Your task to perform on an android device: Go to Google Image 0: 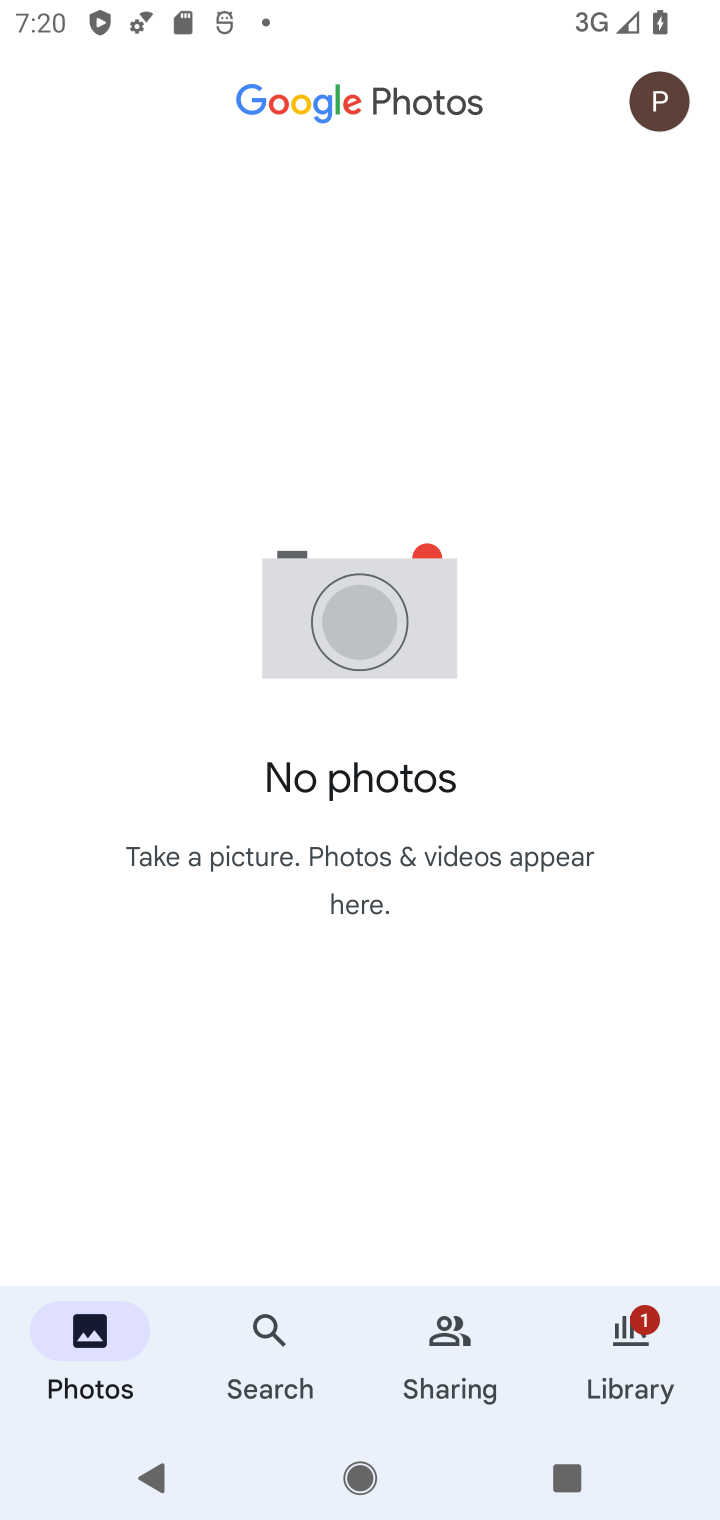
Step 0: press home button
Your task to perform on an android device: Go to Google Image 1: 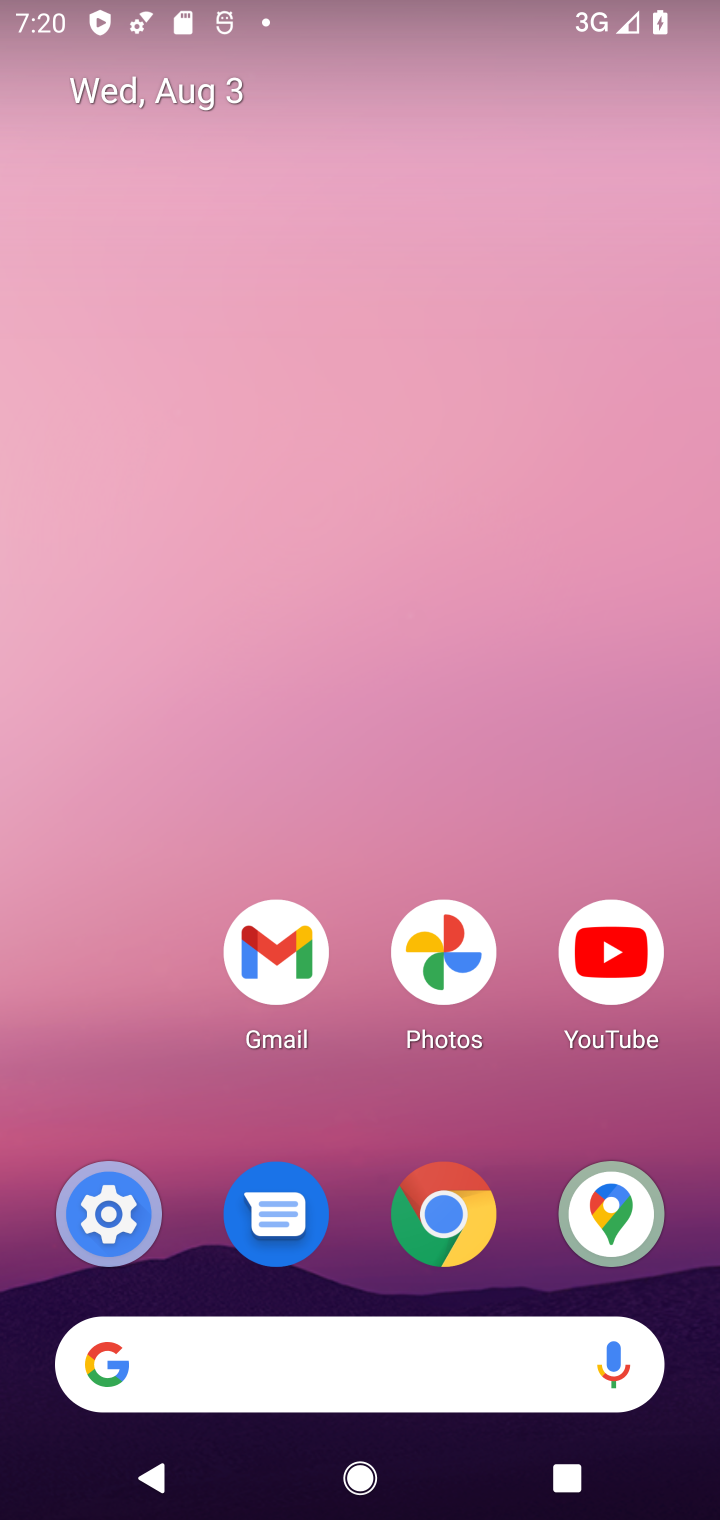
Step 1: drag from (127, 670) to (77, 0)
Your task to perform on an android device: Go to Google Image 2: 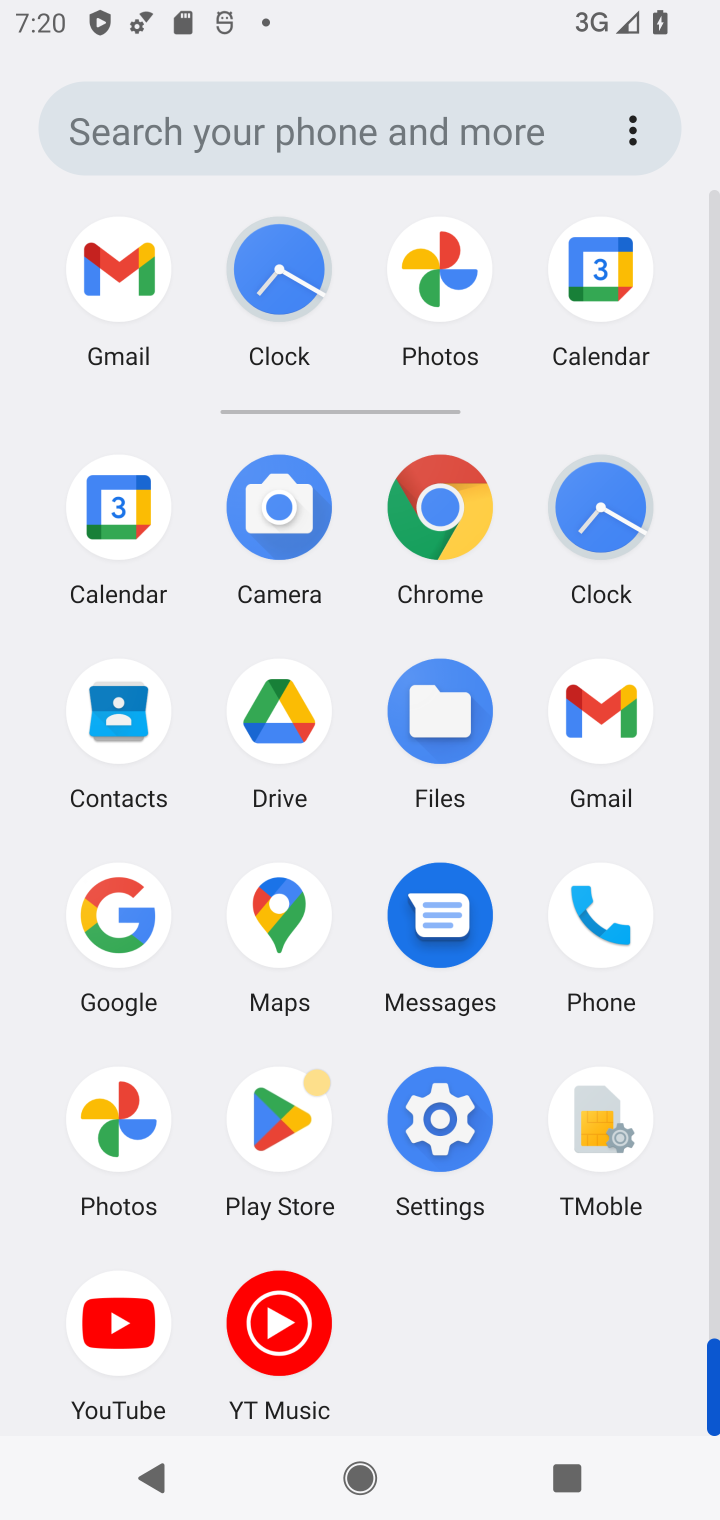
Step 2: click (145, 940)
Your task to perform on an android device: Go to Google Image 3: 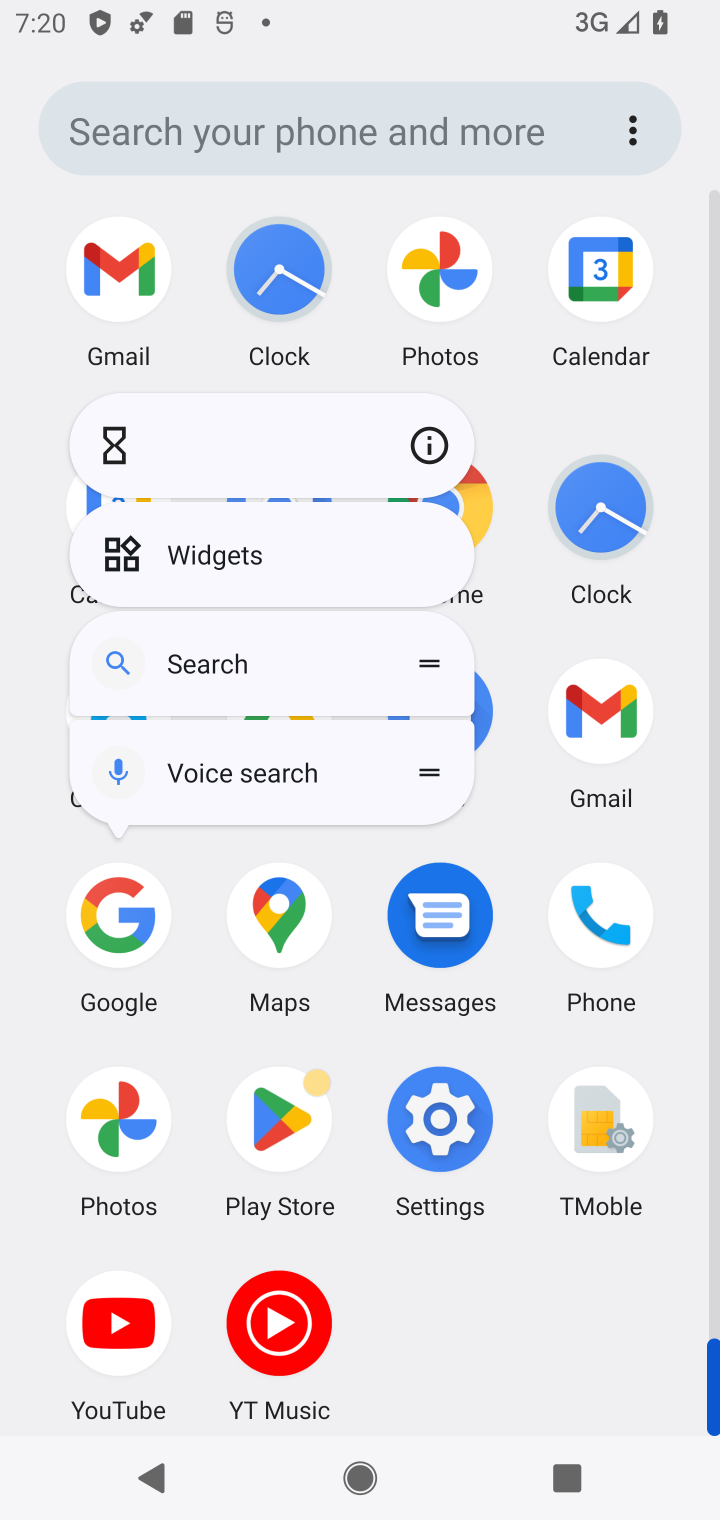
Step 3: click (134, 934)
Your task to perform on an android device: Go to Google Image 4: 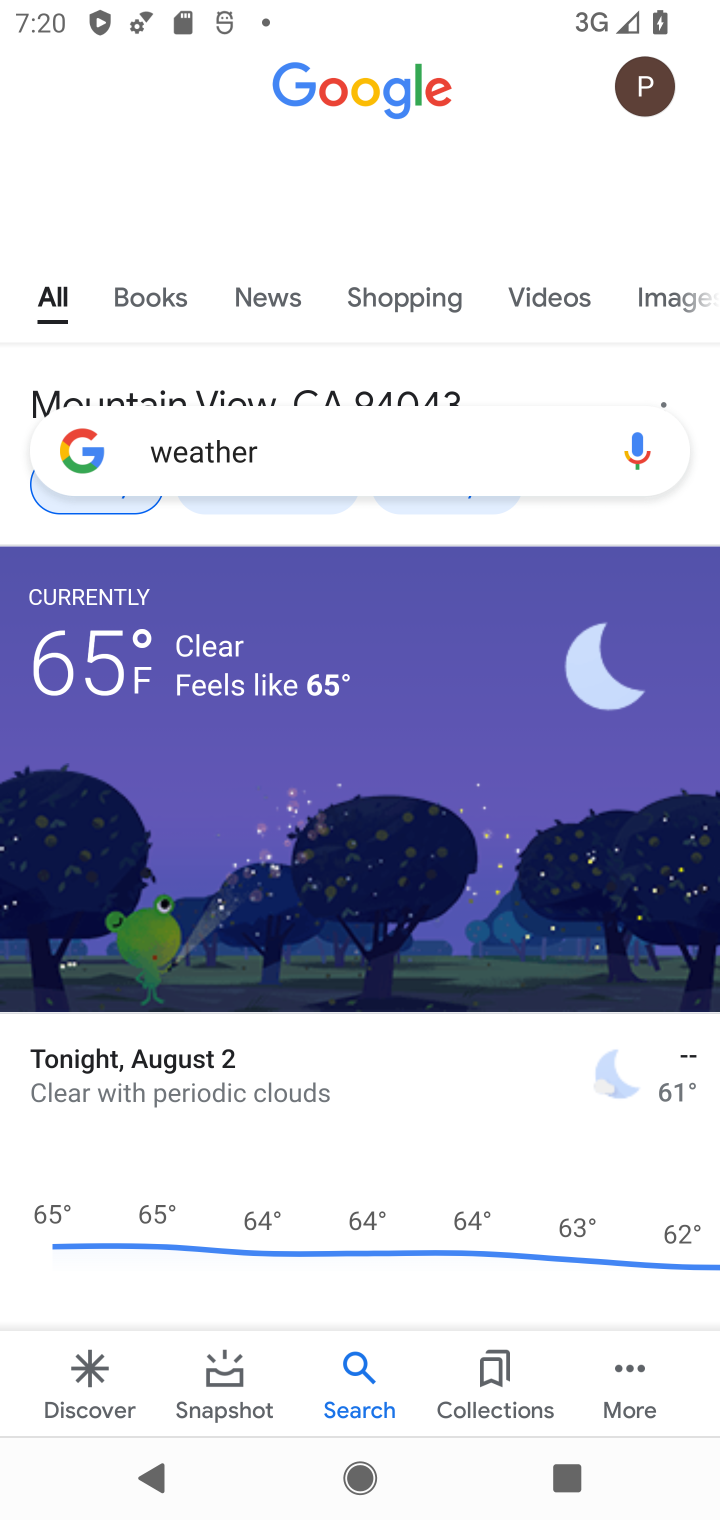
Step 4: task complete